Your task to perform on an android device: install app "Google Photos" Image 0: 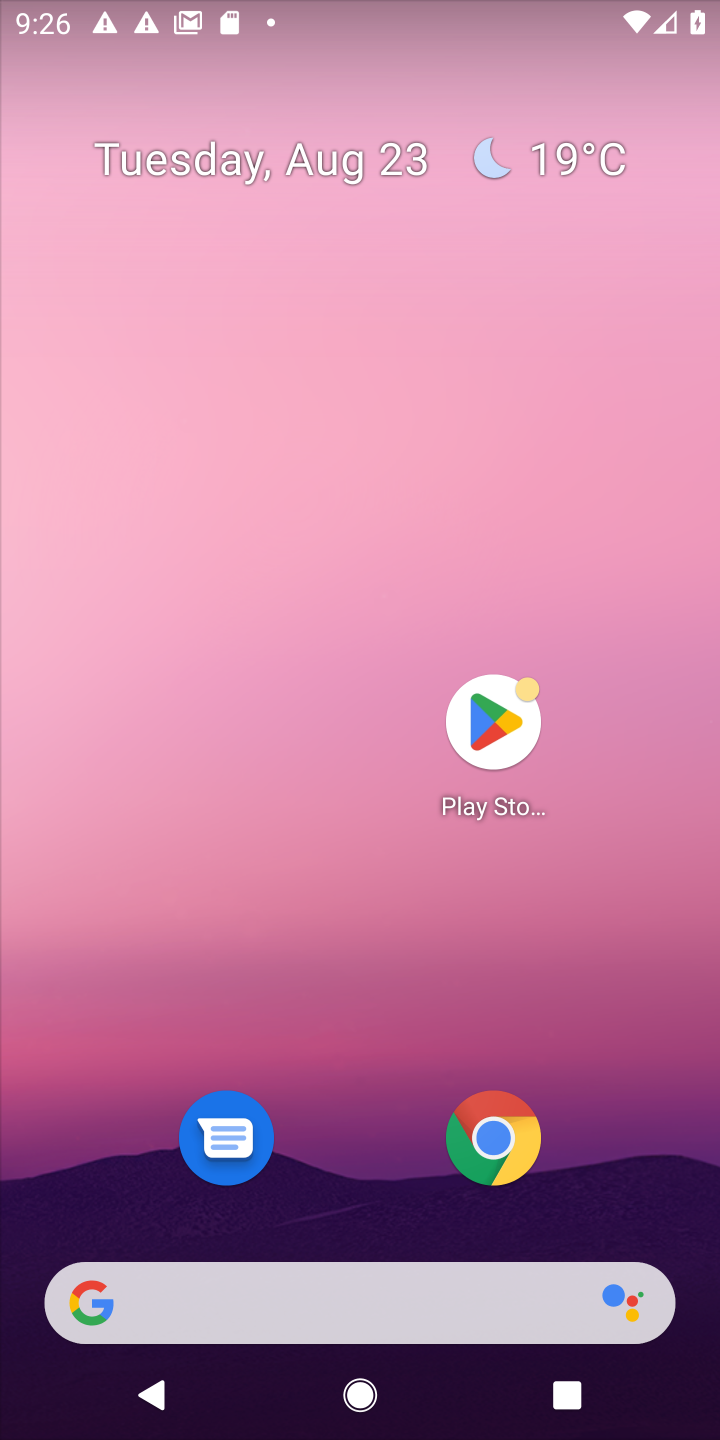
Step 0: click (510, 717)
Your task to perform on an android device: install app "Google Photos" Image 1: 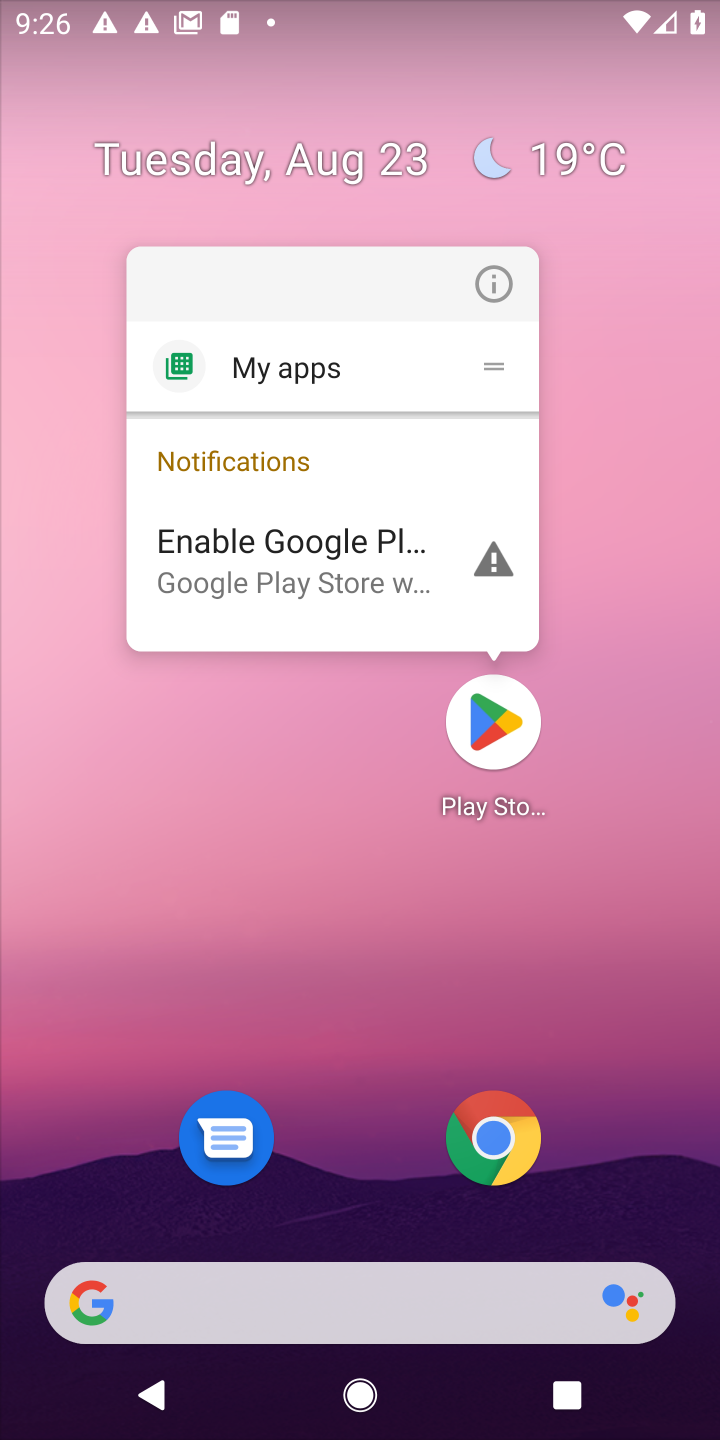
Step 1: click (499, 734)
Your task to perform on an android device: install app "Google Photos" Image 2: 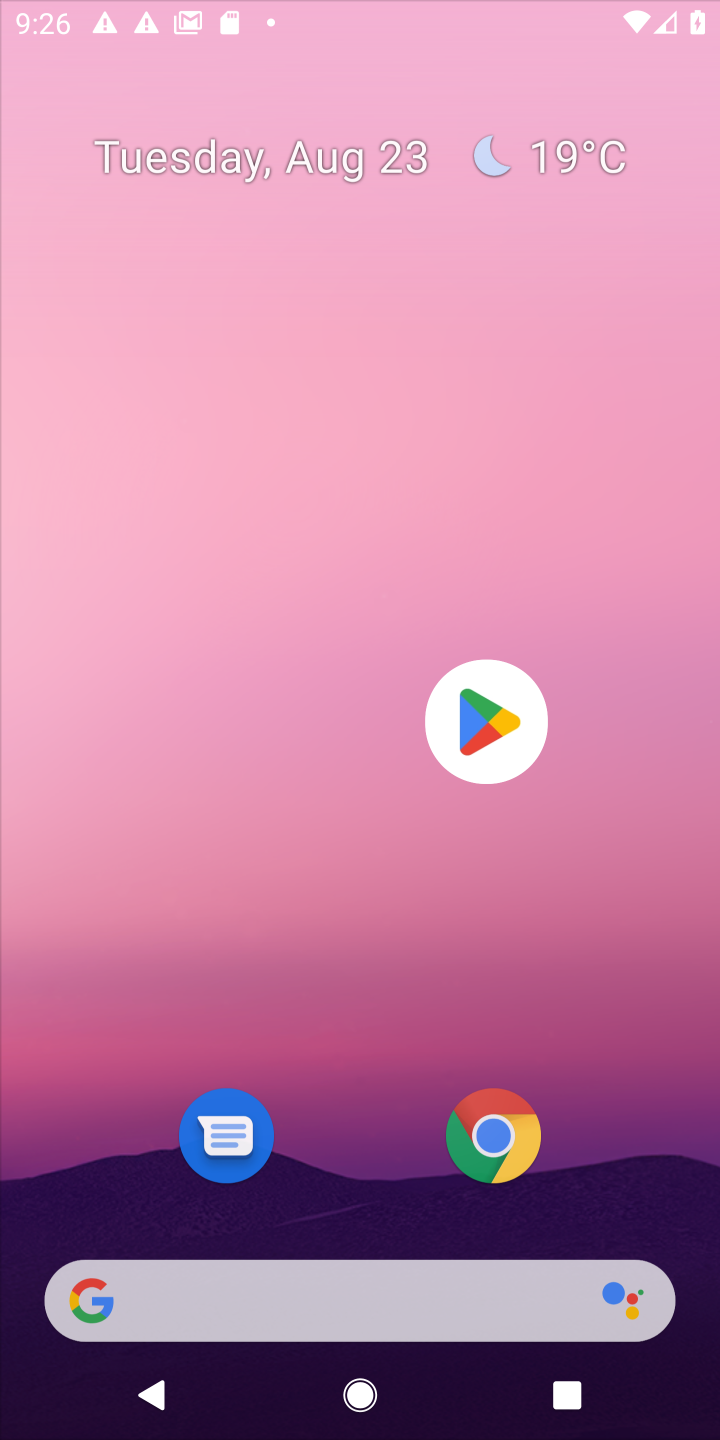
Step 2: click (499, 743)
Your task to perform on an android device: install app "Google Photos" Image 3: 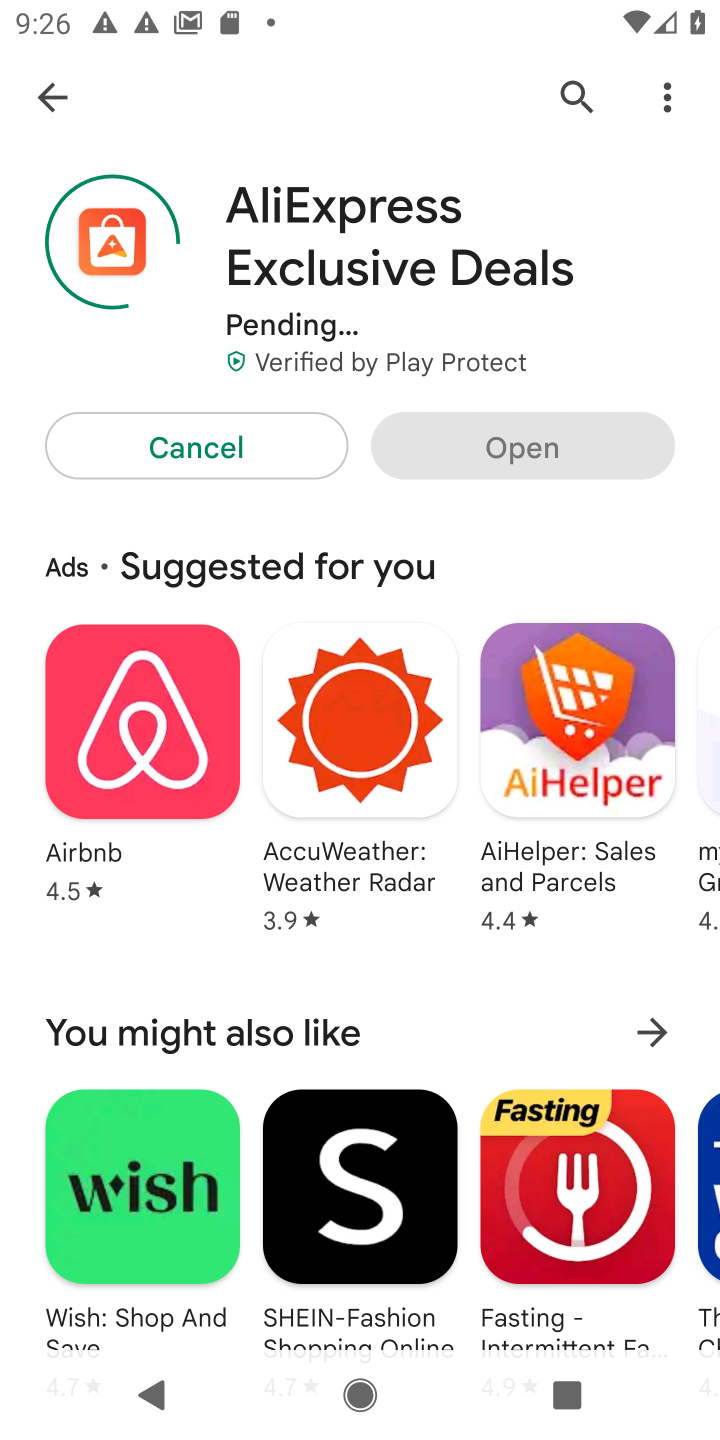
Step 3: click (580, 68)
Your task to perform on an android device: install app "Google Photos" Image 4: 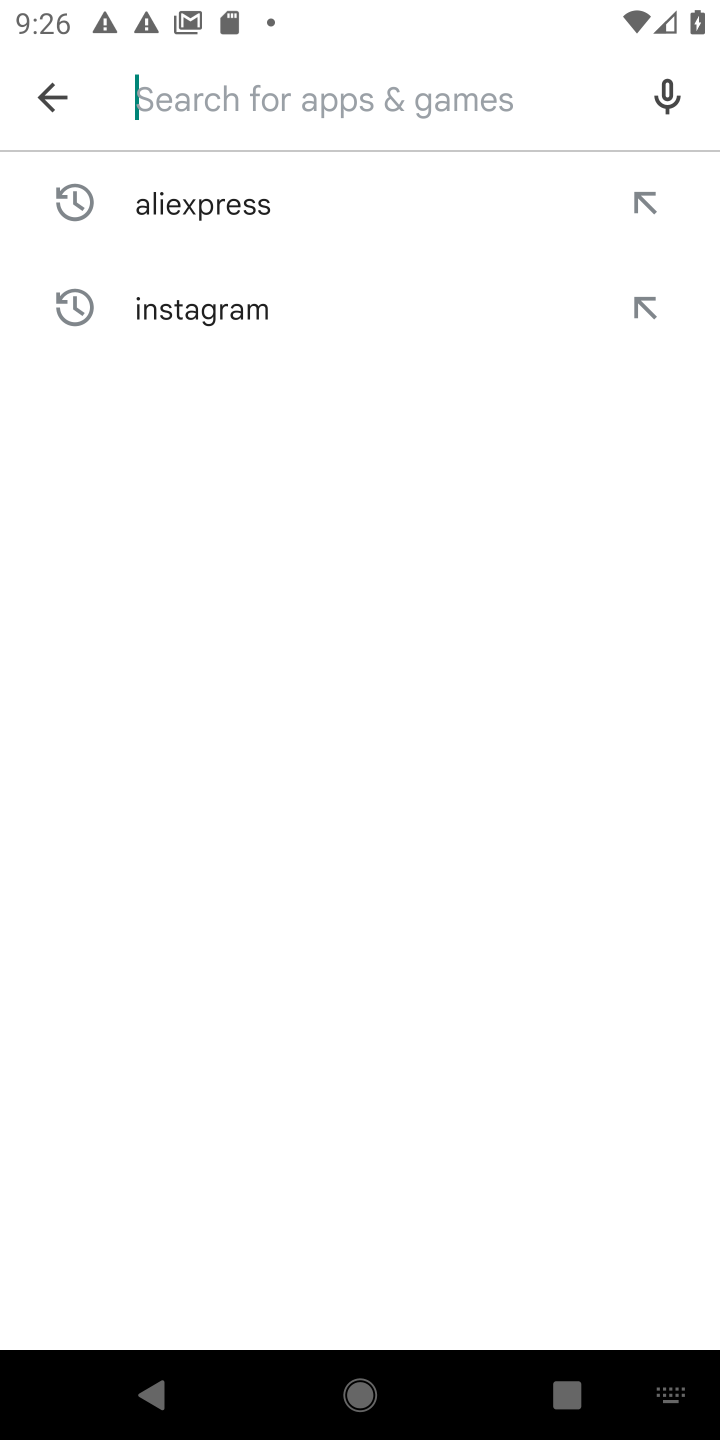
Step 4: type "Google Photos"
Your task to perform on an android device: install app "Google Photos" Image 5: 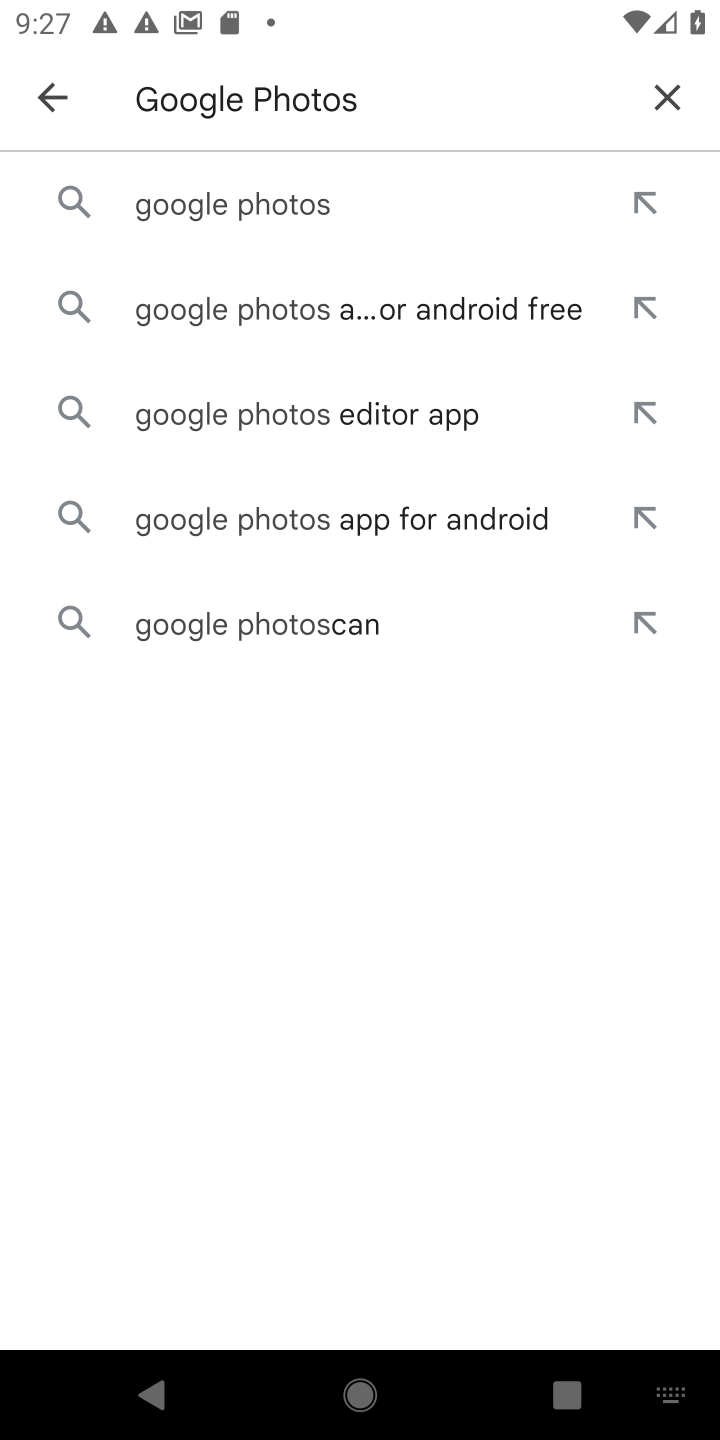
Step 5: click (241, 206)
Your task to perform on an android device: install app "Google Photos" Image 6: 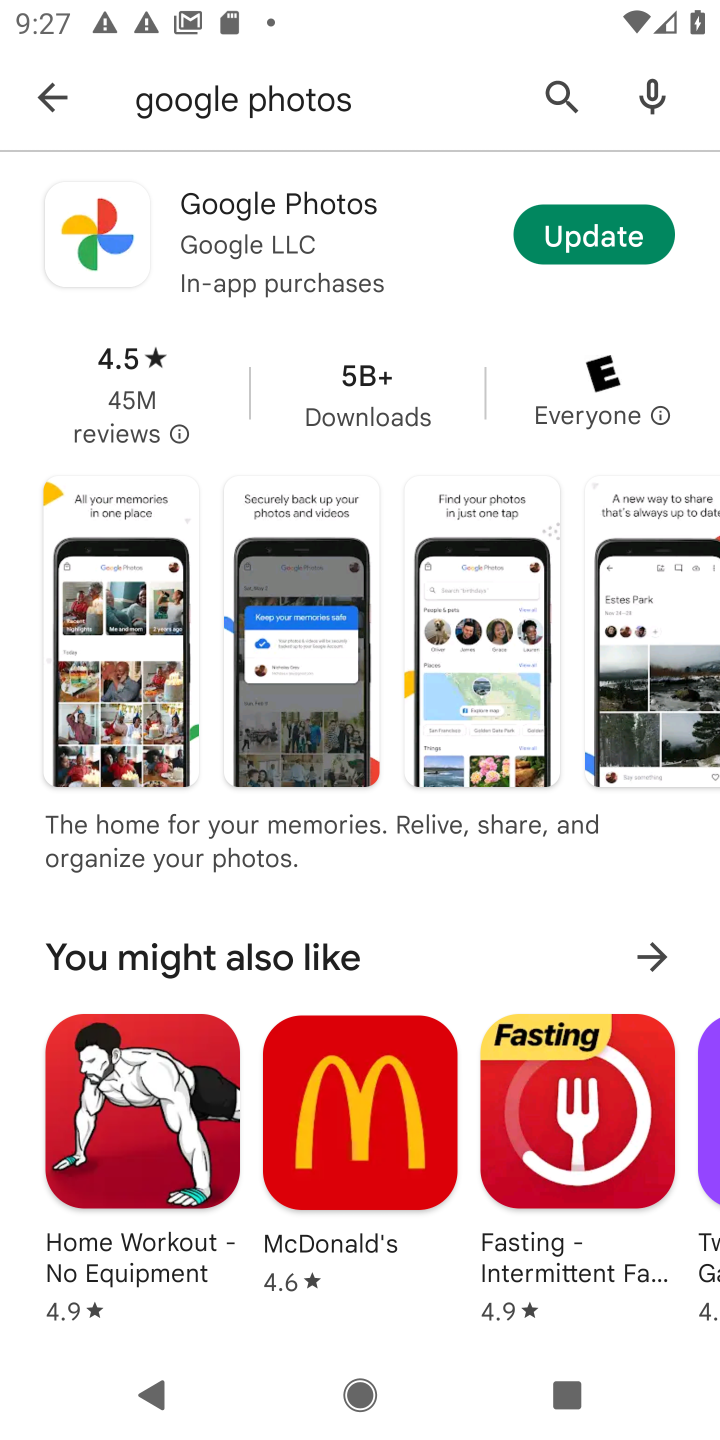
Step 6: click (220, 208)
Your task to perform on an android device: install app "Google Photos" Image 7: 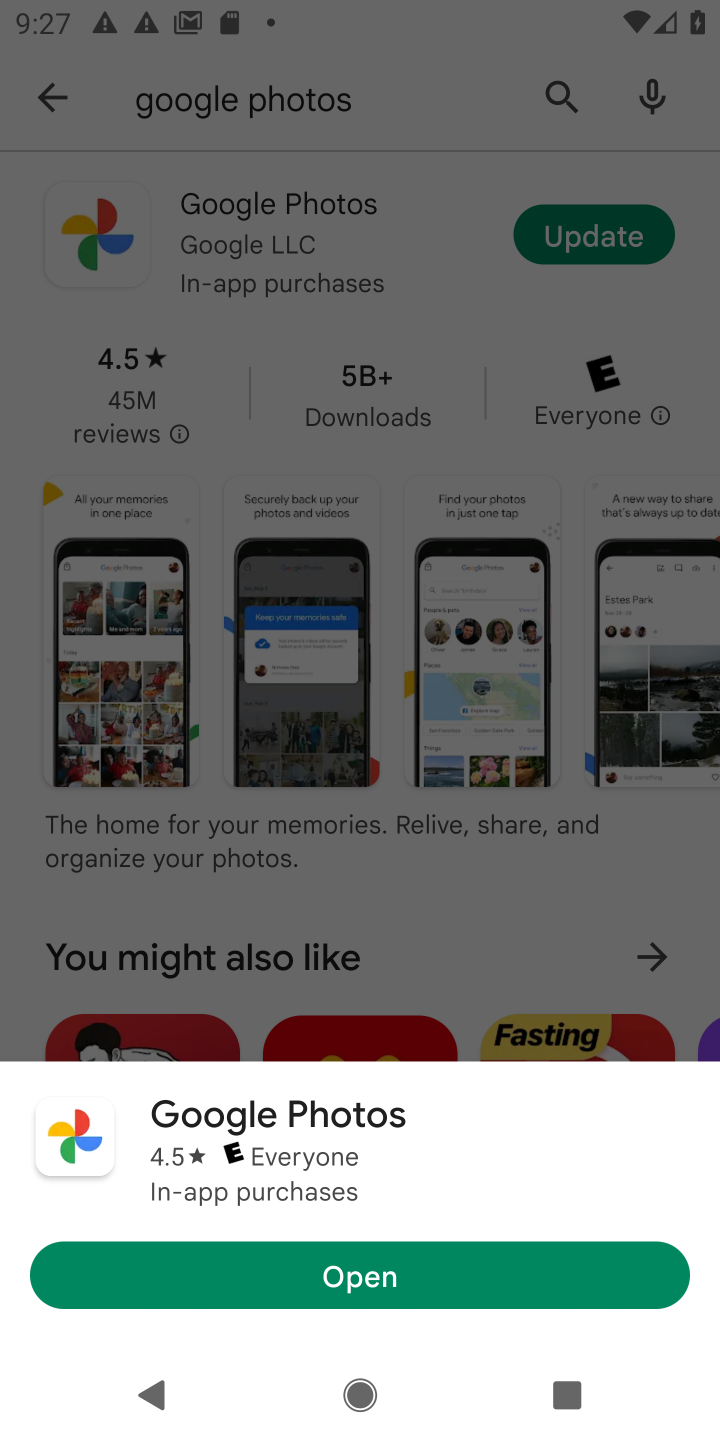
Step 7: task complete